Your task to perform on an android device: change alarm snooze length Image 0: 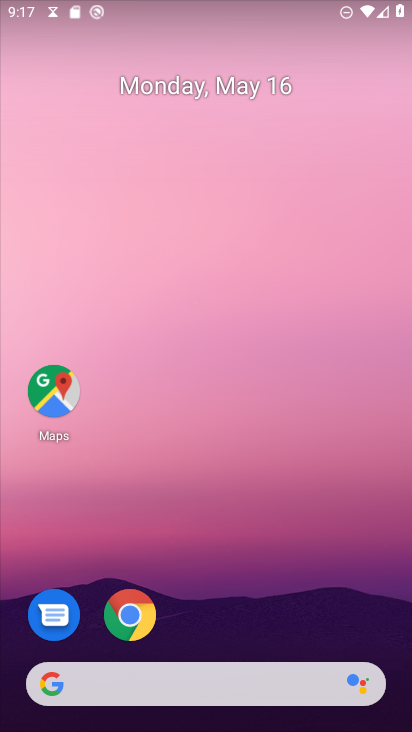
Step 0: drag from (28, 659) to (331, 199)
Your task to perform on an android device: change alarm snooze length Image 1: 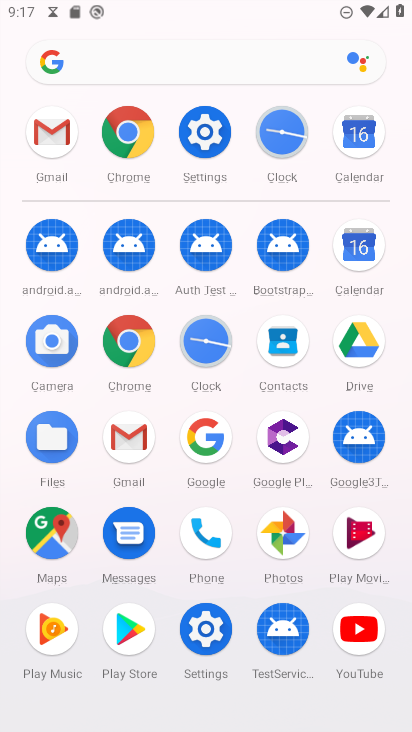
Step 1: click (268, 154)
Your task to perform on an android device: change alarm snooze length Image 2: 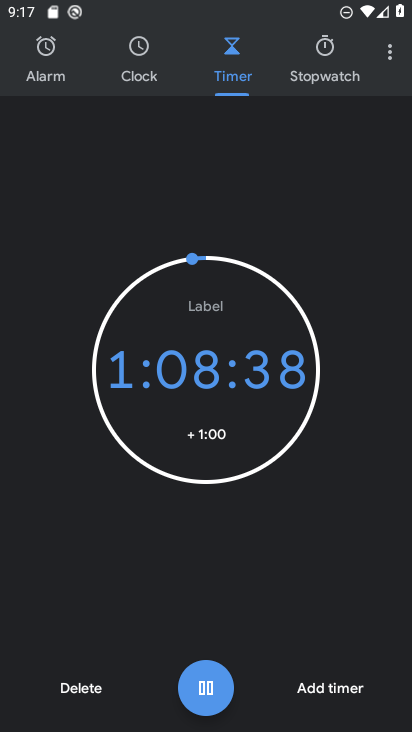
Step 2: click (385, 57)
Your task to perform on an android device: change alarm snooze length Image 3: 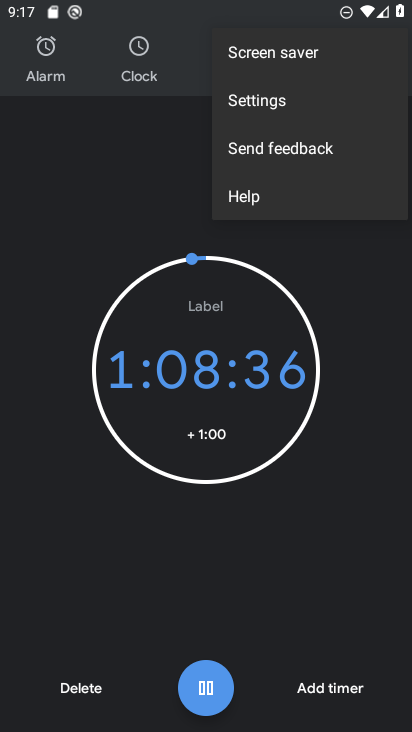
Step 3: click (266, 114)
Your task to perform on an android device: change alarm snooze length Image 4: 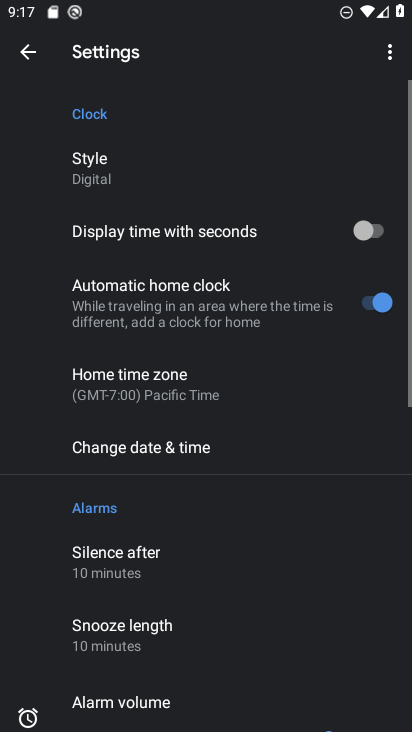
Step 4: click (82, 630)
Your task to perform on an android device: change alarm snooze length Image 5: 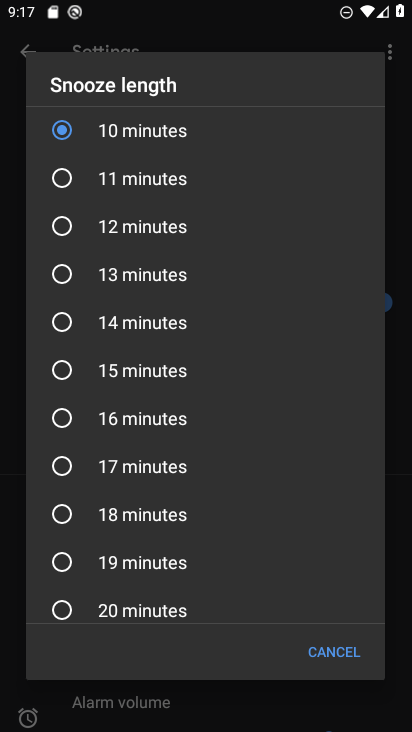
Step 5: click (159, 188)
Your task to perform on an android device: change alarm snooze length Image 6: 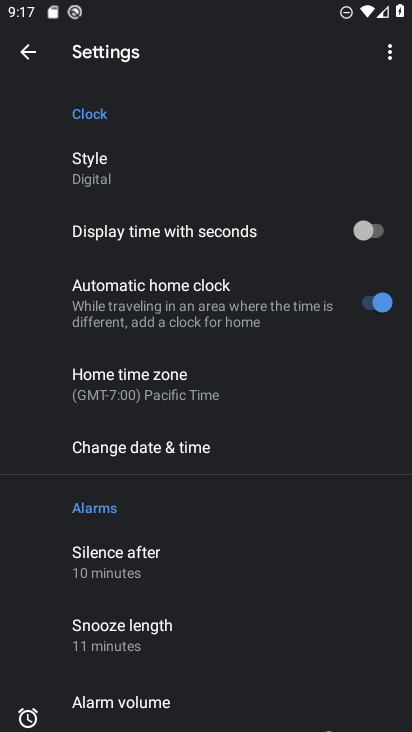
Step 6: task complete